Your task to perform on an android device: open a new tab in the chrome app Image 0: 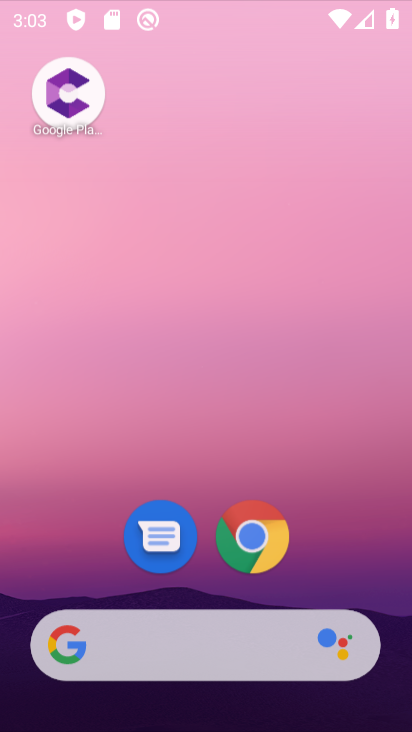
Step 0: press home button
Your task to perform on an android device: open a new tab in the chrome app Image 1: 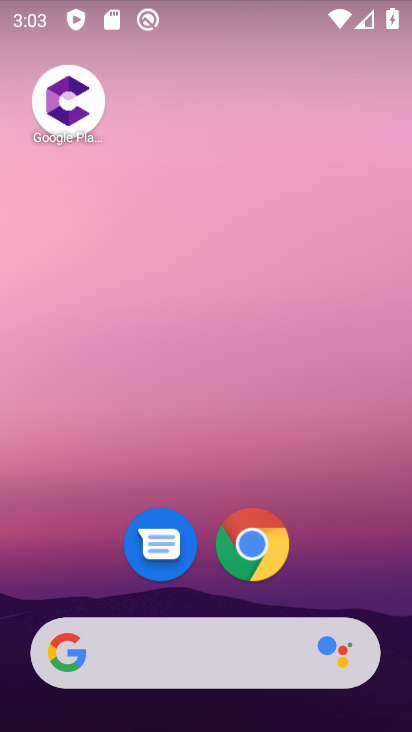
Step 1: click (250, 537)
Your task to perform on an android device: open a new tab in the chrome app Image 2: 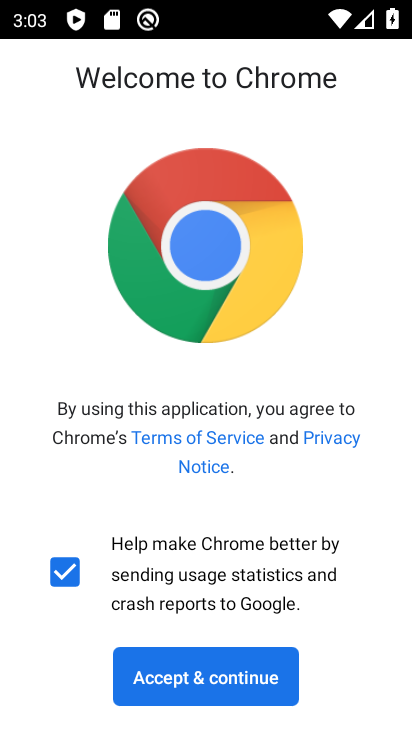
Step 2: click (200, 675)
Your task to perform on an android device: open a new tab in the chrome app Image 3: 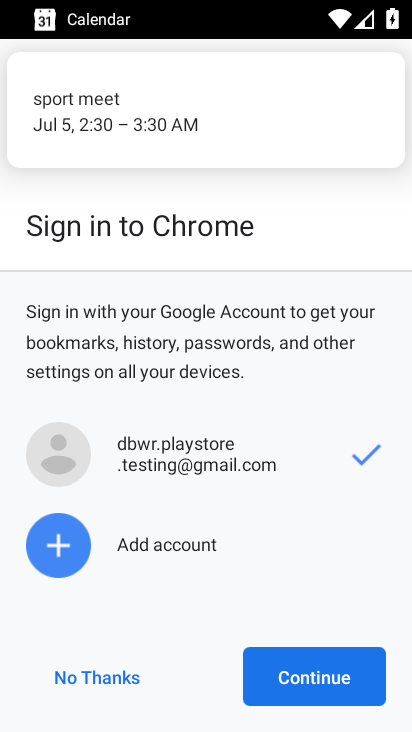
Step 3: click (312, 677)
Your task to perform on an android device: open a new tab in the chrome app Image 4: 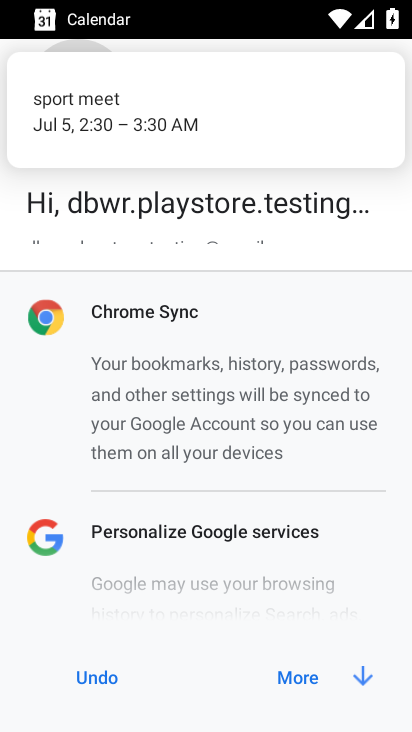
Step 4: click (312, 677)
Your task to perform on an android device: open a new tab in the chrome app Image 5: 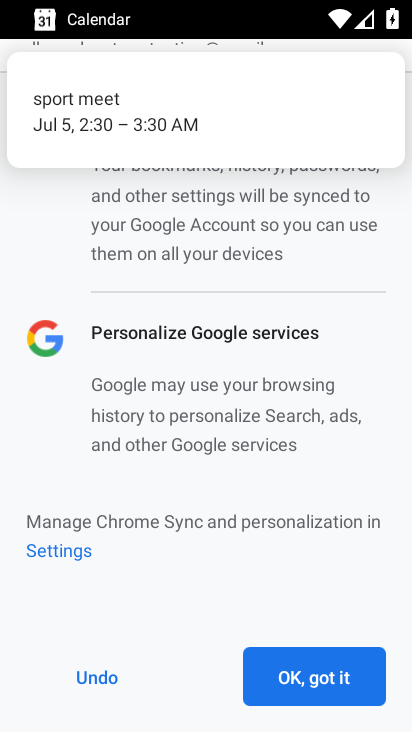
Step 5: click (312, 677)
Your task to perform on an android device: open a new tab in the chrome app Image 6: 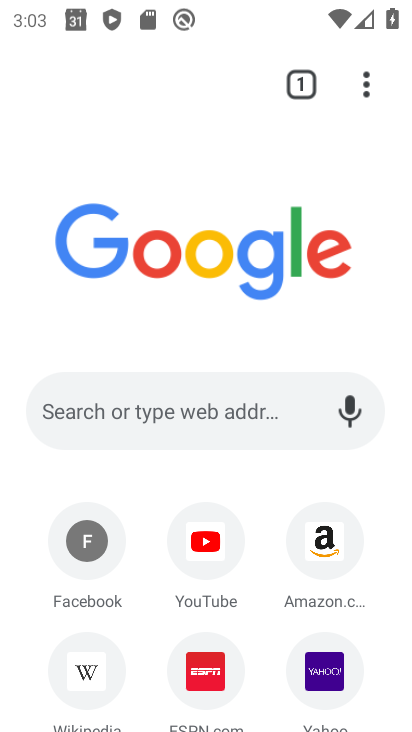
Step 6: click (300, 77)
Your task to perform on an android device: open a new tab in the chrome app Image 7: 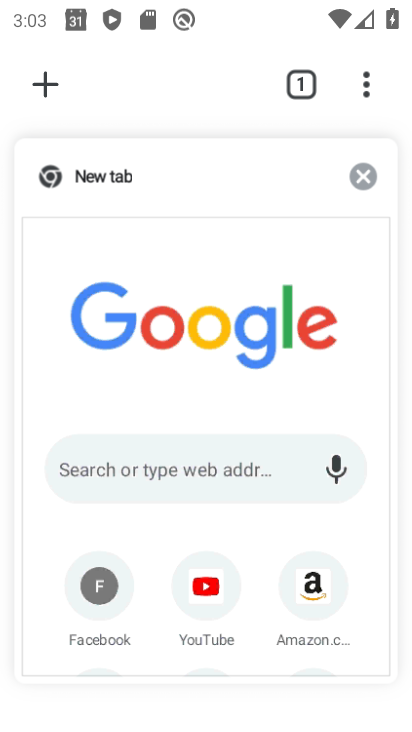
Step 7: click (46, 84)
Your task to perform on an android device: open a new tab in the chrome app Image 8: 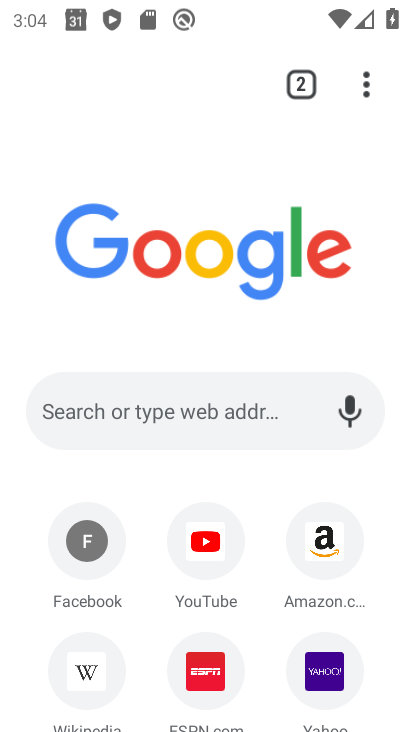
Step 8: task complete